Your task to perform on an android device: turn notification dots on Image 0: 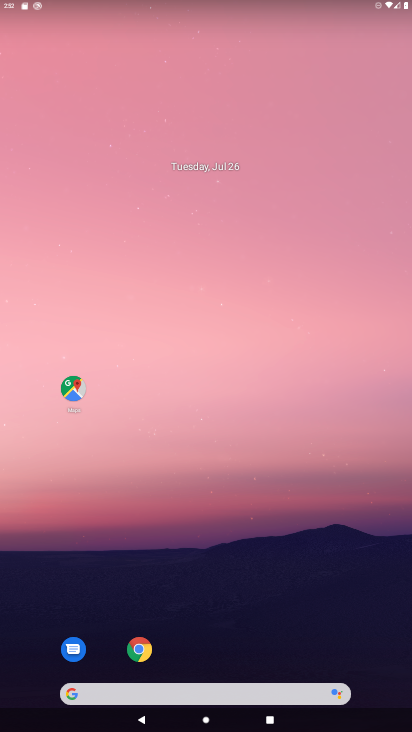
Step 0: drag from (191, 661) to (195, 221)
Your task to perform on an android device: turn notification dots on Image 1: 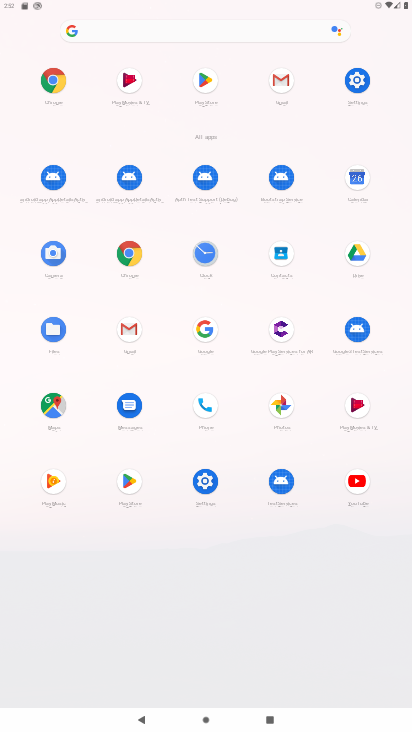
Step 1: click (360, 86)
Your task to perform on an android device: turn notification dots on Image 2: 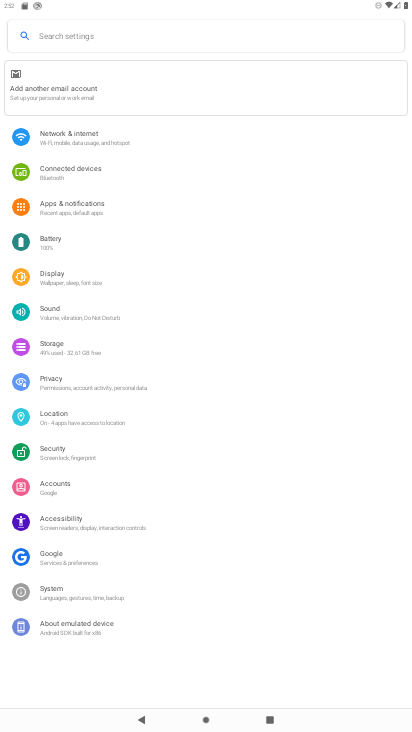
Step 2: click (92, 213)
Your task to perform on an android device: turn notification dots on Image 3: 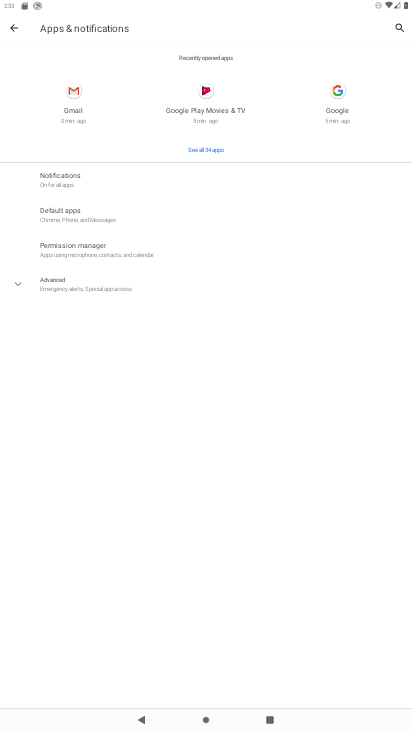
Step 3: click (91, 171)
Your task to perform on an android device: turn notification dots on Image 4: 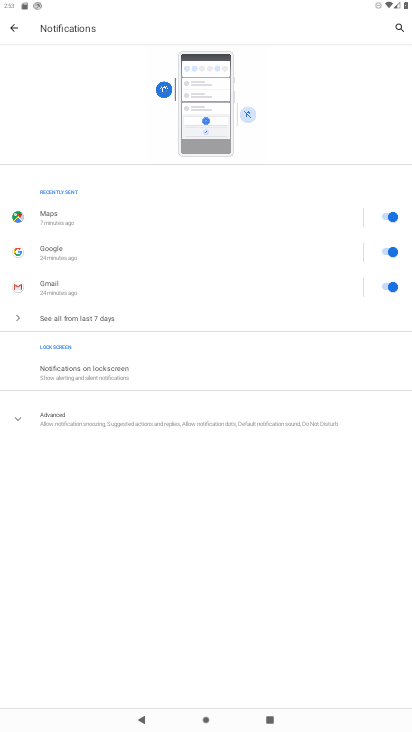
Step 4: click (100, 322)
Your task to perform on an android device: turn notification dots on Image 5: 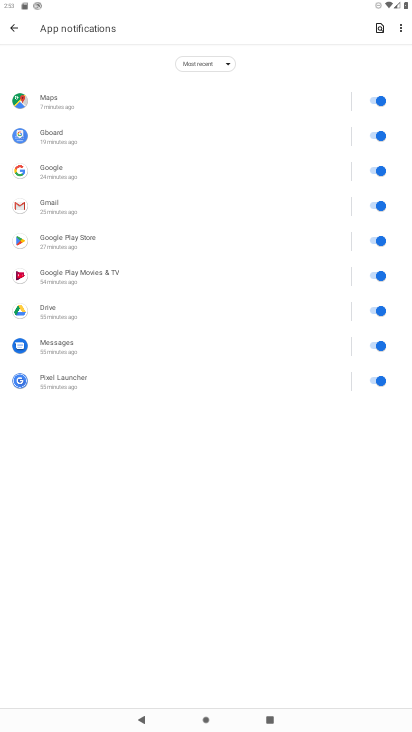
Step 5: click (18, 22)
Your task to perform on an android device: turn notification dots on Image 6: 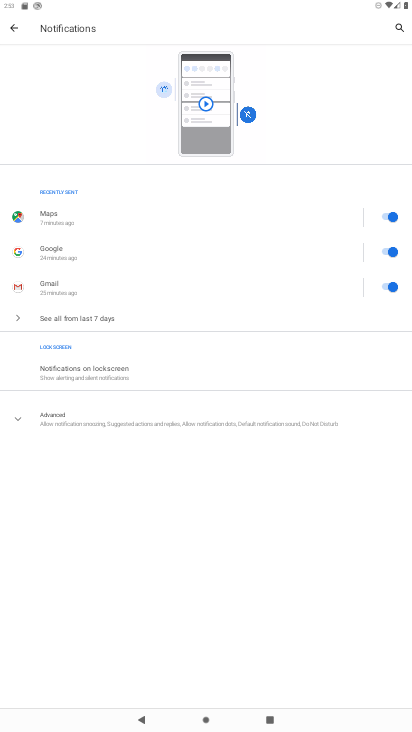
Step 6: click (58, 411)
Your task to perform on an android device: turn notification dots on Image 7: 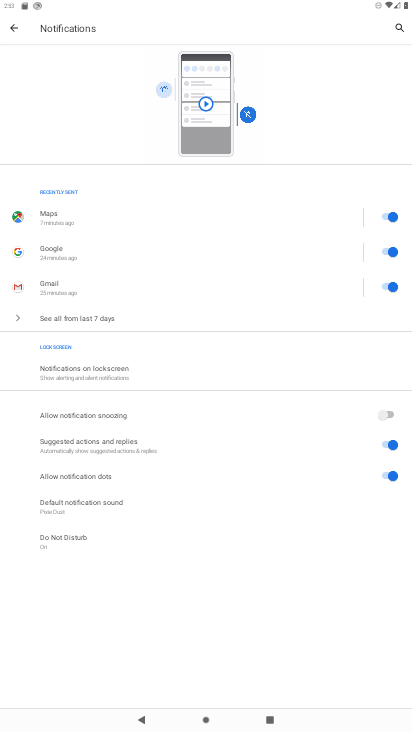
Step 7: task complete